Your task to perform on an android device: toggle sleep mode Image 0: 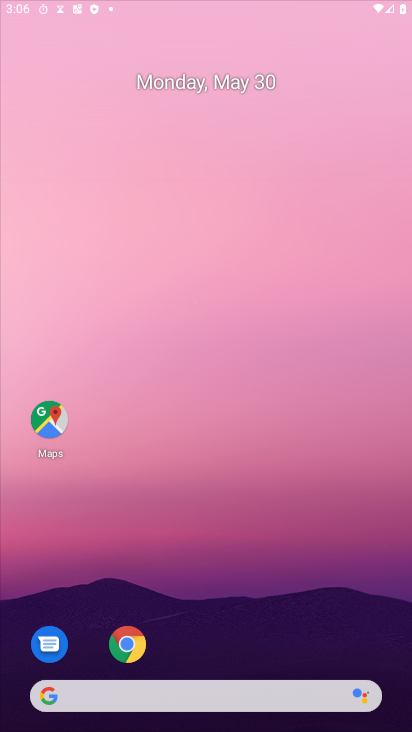
Step 0: press home button
Your task to perform on an android device: toggle sleep mode Image 1: 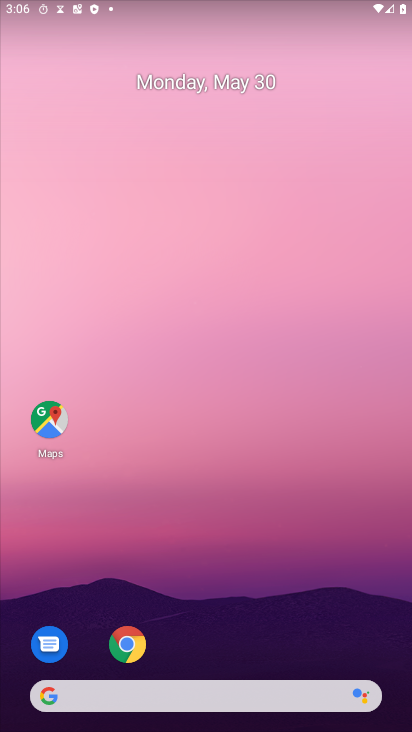
Step 1: drag from (255, 629) to (255, 412)
Your task to perform on an android device: toggle sleep mode Image 2: 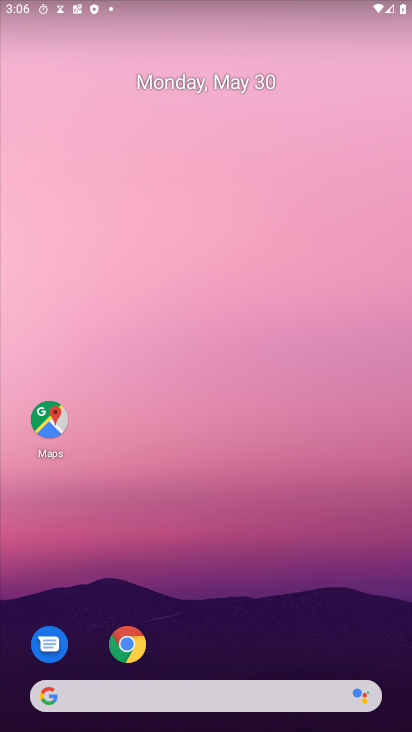
Step 2: click (262, 189)
Your task to perform on an android device: toggle sleep mode Image 3: 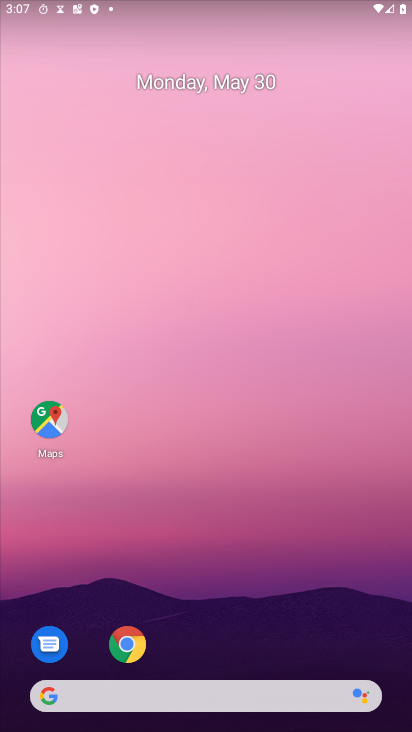
Step 3: drag from (209, 255) to (207, 172)
Your task to perform on an android device: toggle sleep mode Image 4: 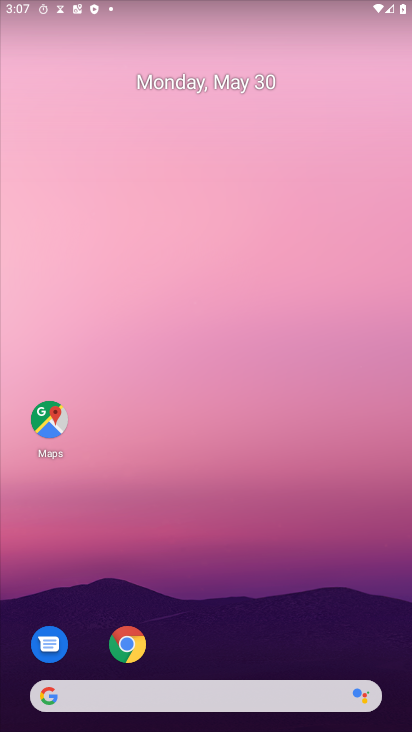
Step 4: drag from (237, 619) to (237, 147)
Your task to perform on an android device: toggle sleep mode Image 5: 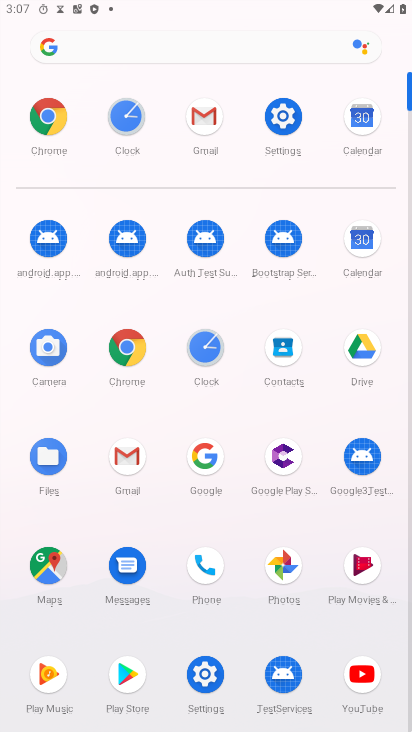
Step 5: click (274, 120)
Your task to perform on an android device: toggle sleep mode Image 6: 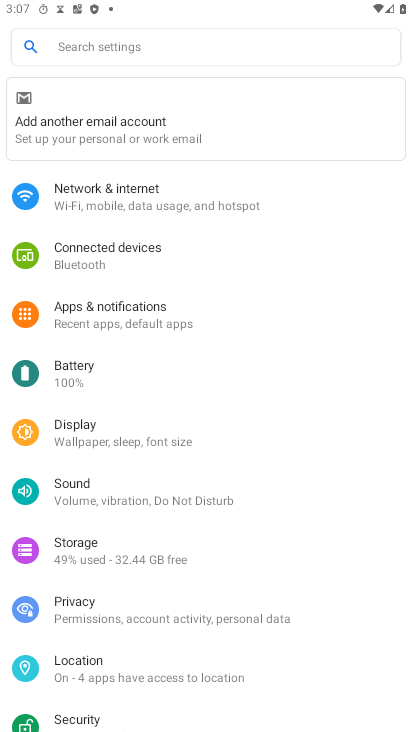
Step 6: click (107, 437)
Your task to perform on an android device: toggle sleep mode Image 7: 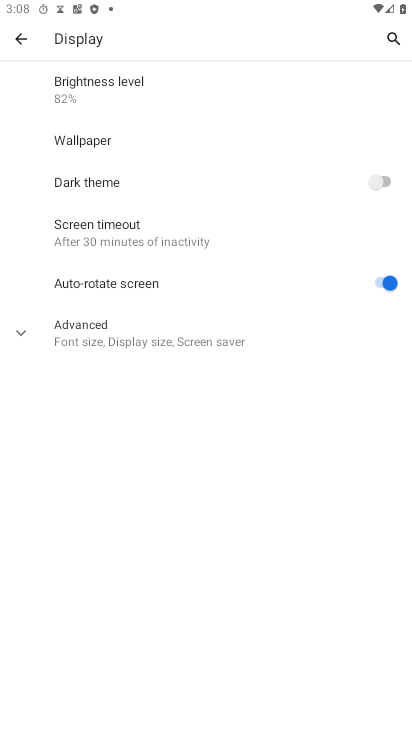
Step 7: task complete